Your task to perform on an android device: change the upload size in google photos Image 0: 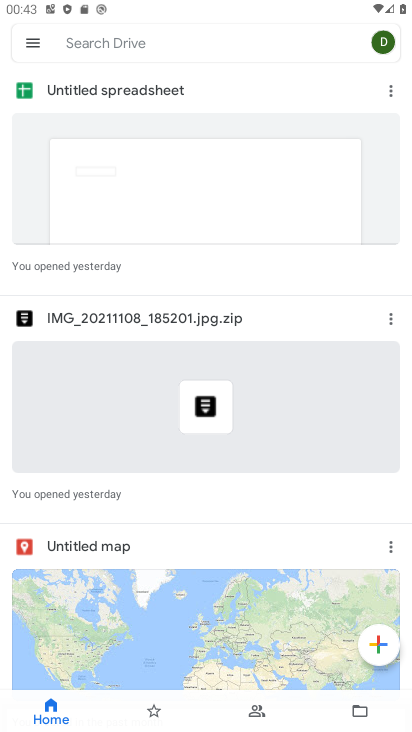
Step 0: press home button
Your task to perform on an android device: change the upload size in google photos Image 1: 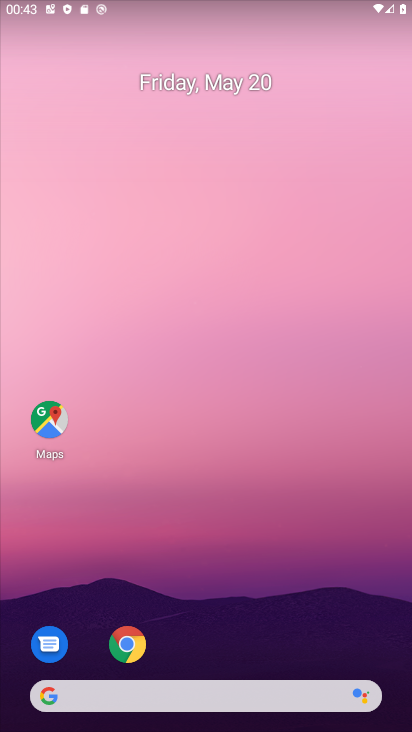
Step 1: drag from (336, 659) to (293, 9)
Your task to perform on an android device: change the upload size in google photos Image 2: 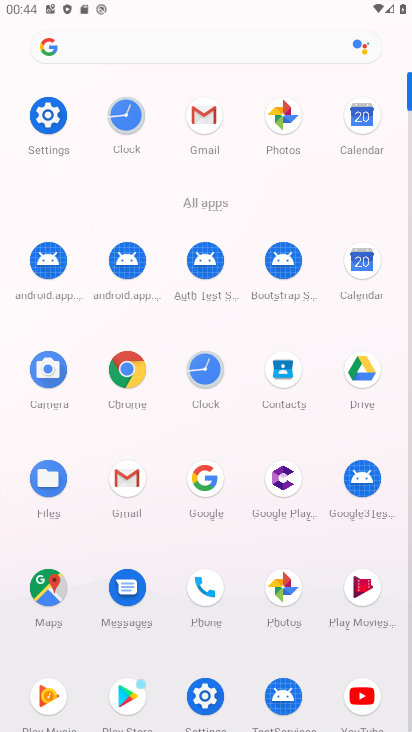
Step 2: click (276, 591)
Your task to perform on an android device: change the upload size in google photos Image 3: 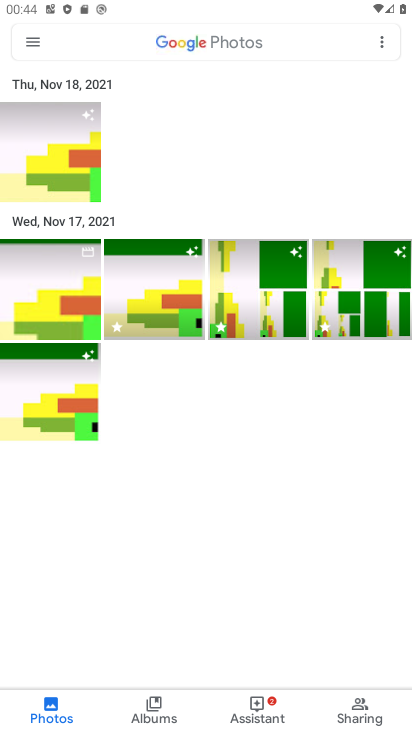
Step 3: click (33, 40)
Your task to perform on an android device: change the upload size in google photos Image 4: 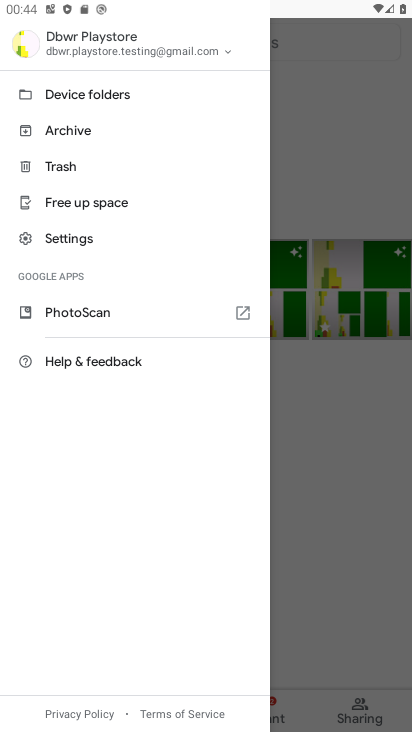
Step 4: click (57, 240)
Your task to perform on an android device: change the upload size in google photos Image 5: 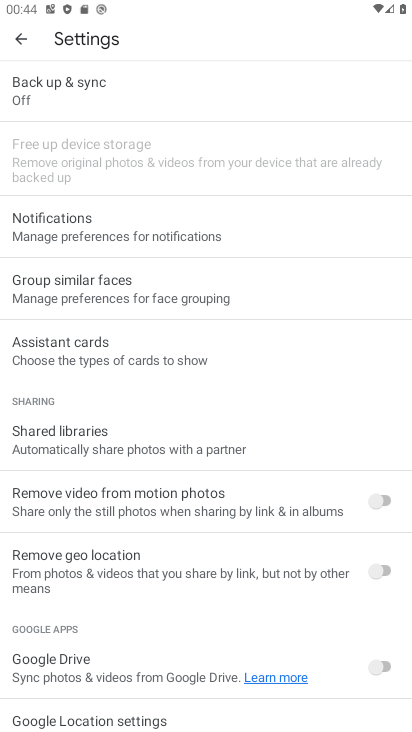
Step 5: click (51, 84)
Your task to perform on an android device: change the upload size in google photos Image 6: 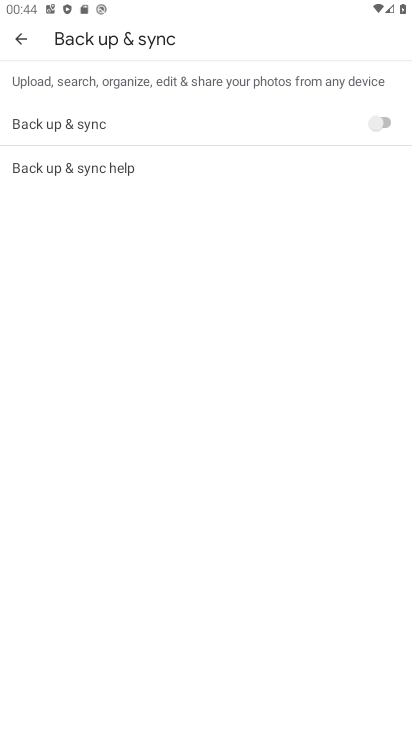
Step 6: click (387, 129)
Your task to perform on an android device: change the upload size in google photos Image 7: 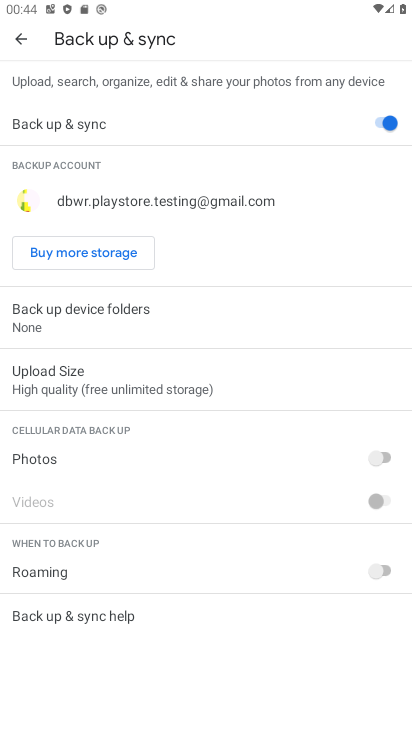
Step 7: click (40, 373)
Your task to perform on an android device: change the upload size in google photos Image 8: 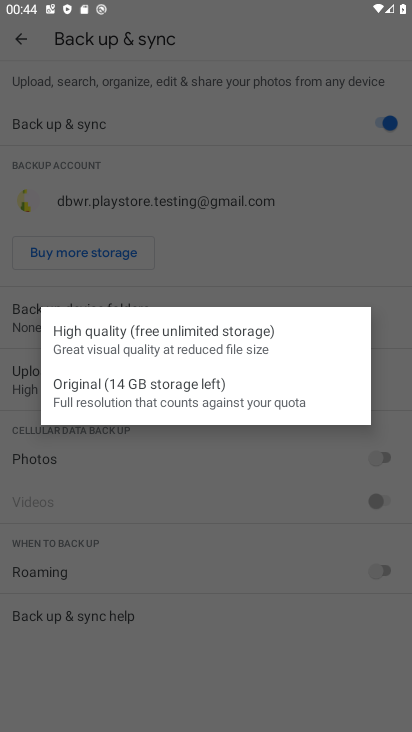
Step 8: click (73, 390)
Your task to perform on an android device: change the upload size in google photos Image 9: 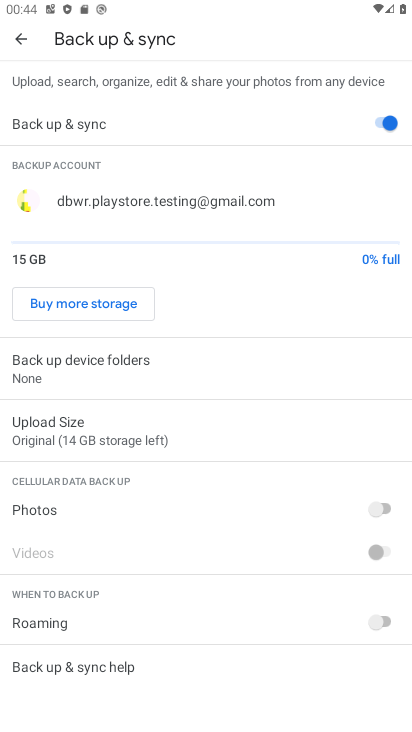
Step 9: task complete